Your task to perform on an android device: Do I have any events tomorrow? Image 0: 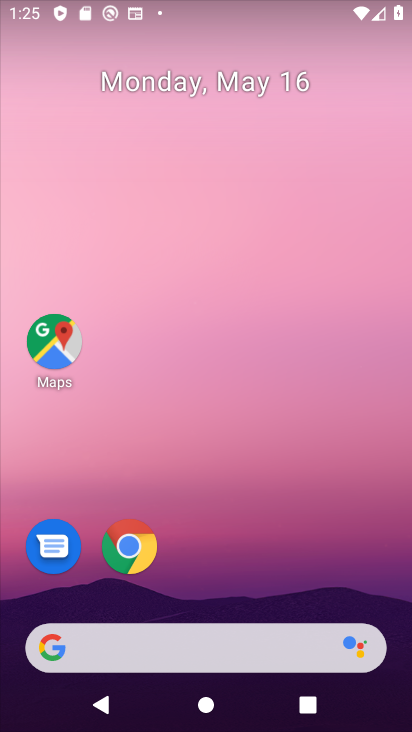
Step 0: drag from (241, 522) to (331, 240)
Your task to perform on an android device: Do I have any events tomorrow? Image 1: 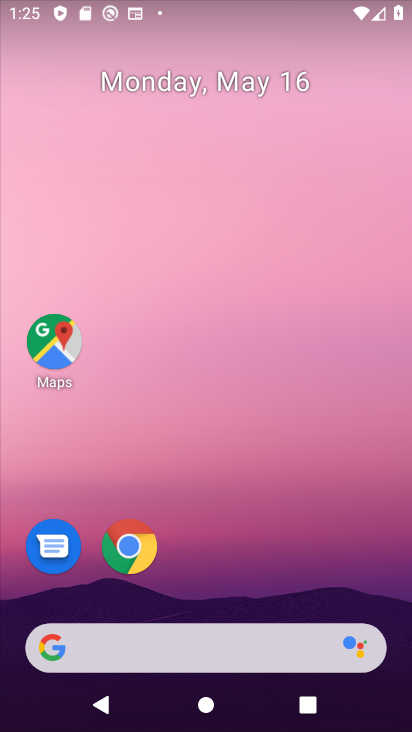
Step 1: drag from (185, 397) to (187, 213)
Your task to perform on an android device: Do I have any events tomorrow? Image 2: 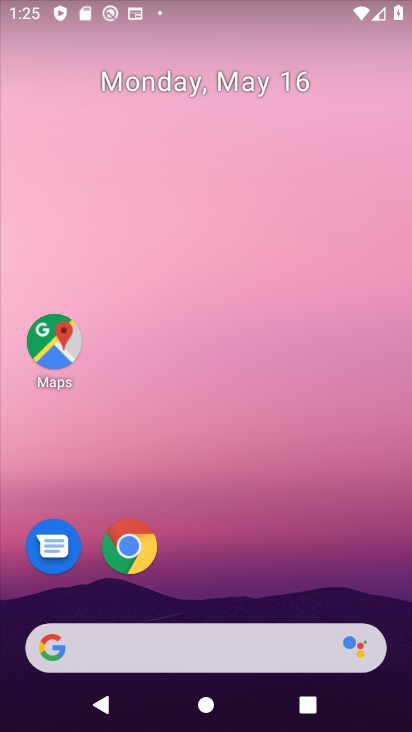
Step 2: drag from (169, 579) to (280, 159)
Your task to perform on an android device: Do I have any events tomorrow? Image 3: 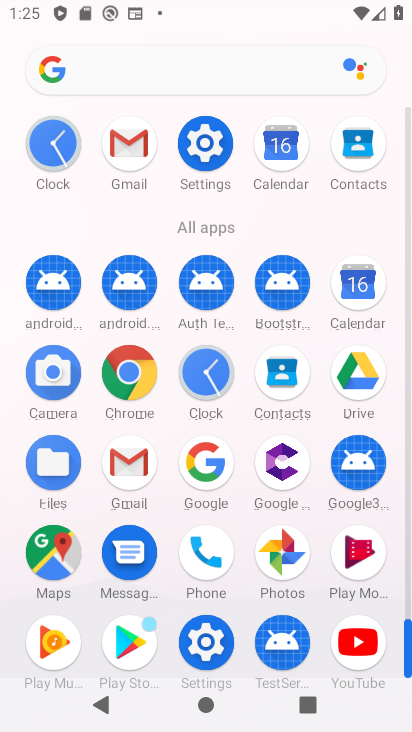
Step 3: click (357, 269)
Your task to perform on an android device: Do I have any events tomorrow? Image 4: 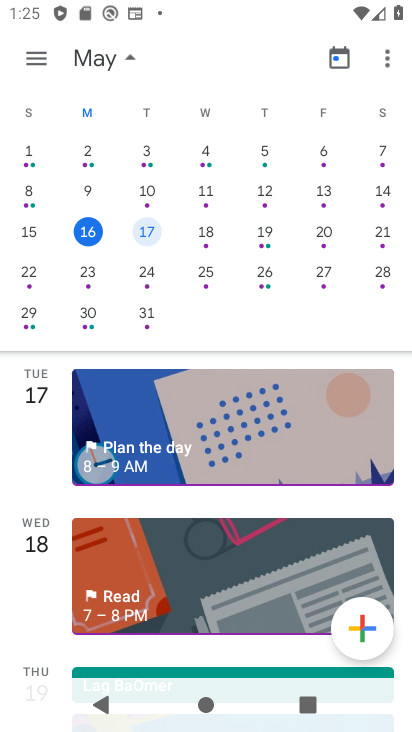
Step 4: click (142, 227)
Your task to perform on an android device: Do I have any events tomorrow? Image 5: 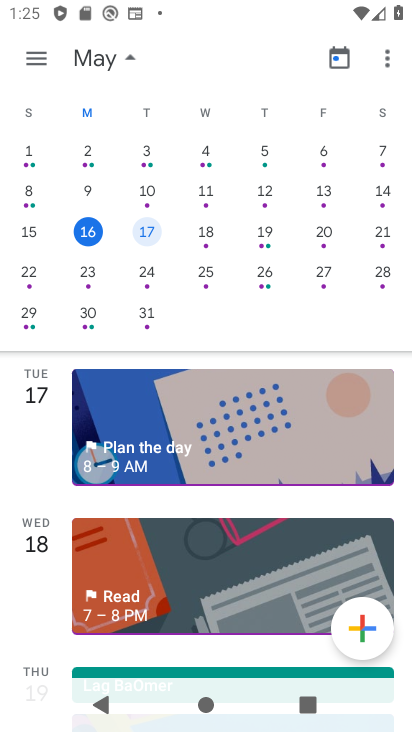
Step 5: task complete